Your task to perform on an android device: remove spam from my inbox in the gmail app Image 0: 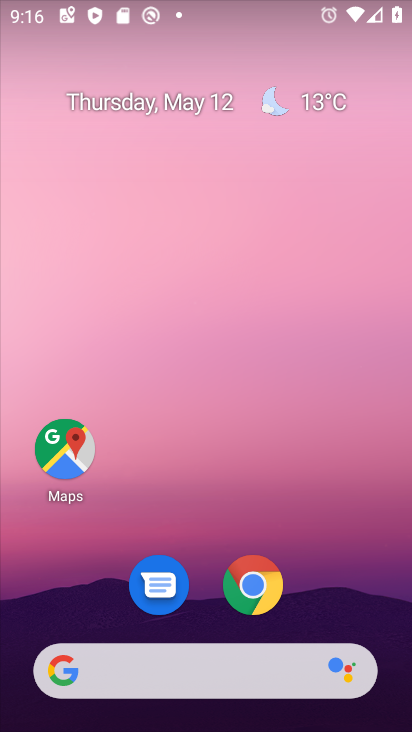
Step 0: drag from (258, 484) to (234, 20)
Your task to perform on an android device: remove spam from my inbox in the gmail app Image 1: 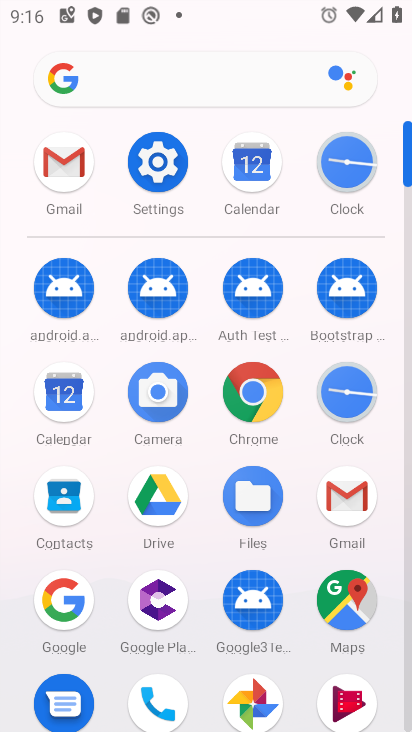
Step 1: click (80, 163)
Your task to perform on an android device: remove spam from my inbox in the gmail app Image 2: 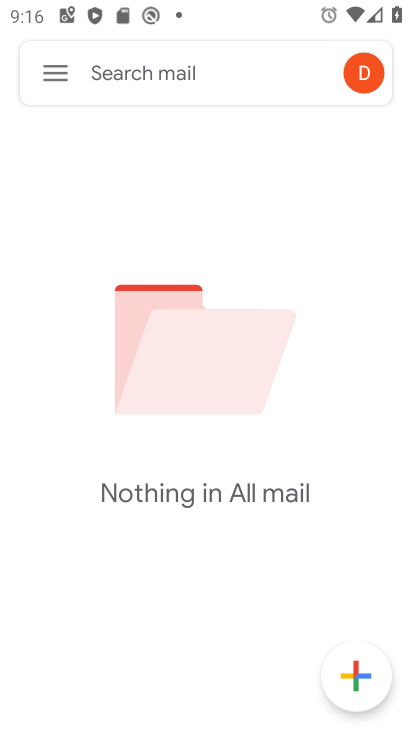
Step 2: task complete